Your task to perform on an android device: move a message to another label in the gmail app Image 0: 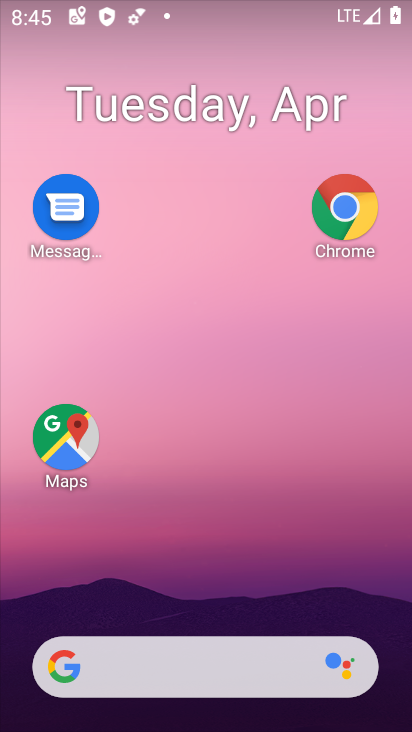
Step 0: drag from (195, 443) to (191, 26)
Your task to perform on an android device: move a message to another label in the gmail app Image 1: 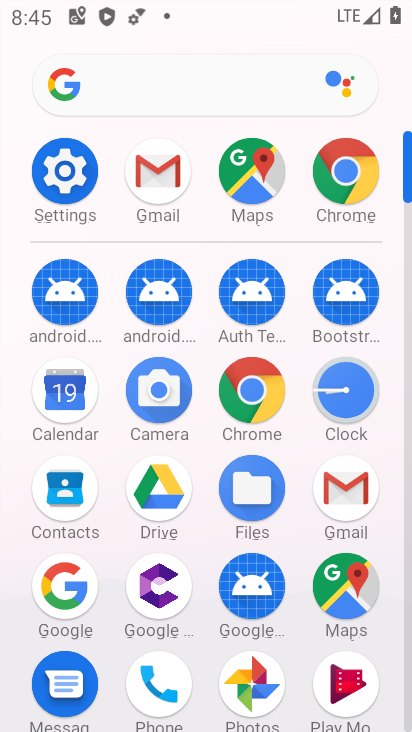
Step 1: click (339, 498)
Your task to perform on an android device: move a message to another label in the gmail app Image 2: 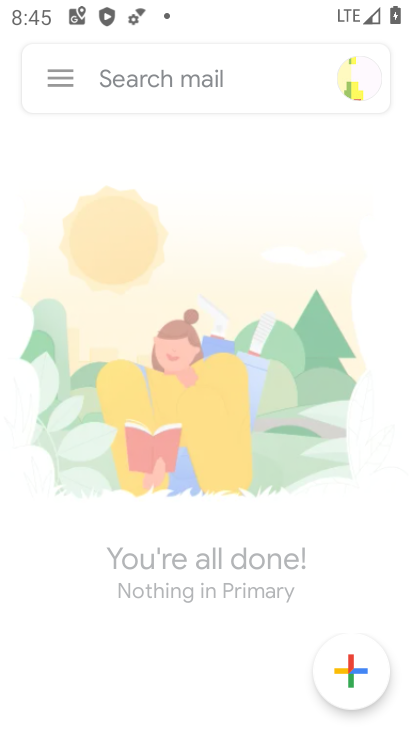
Step 2: click (77, 79)
Your task to perform on an android device: move a message to another label in the gmail app Image 3: 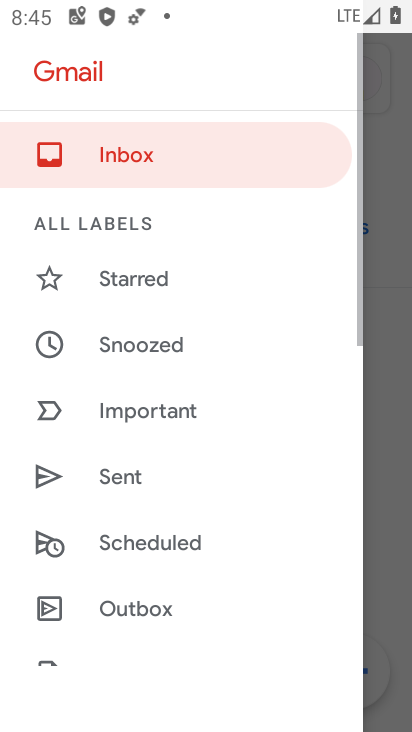
Step 3: click (115, 163)
Your task to perform on an android device: move a message to another label in the gmail app Image 4: 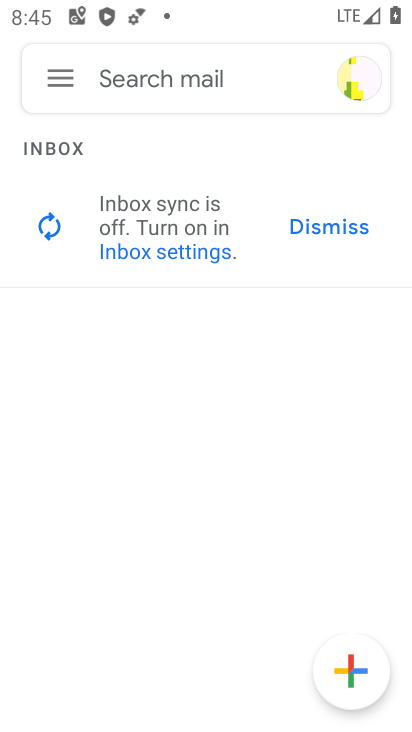
Step 4: task complete